Your task to perform on an android device: change text size in settings app Image 0: 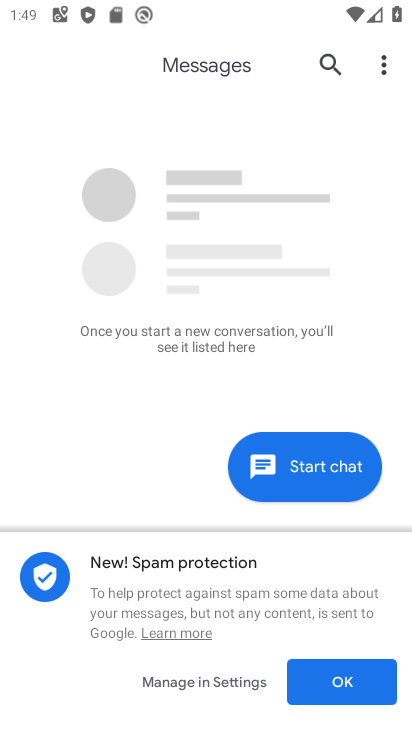
Step 0: press home button
Your task to perform on an android device: change text size in settings app Image 1: 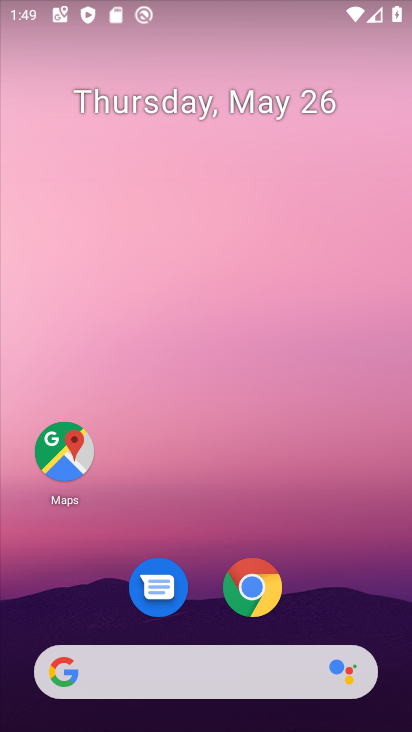
Step 1: drag from (325, 586) to (321, 183)
Your task to perform on an android device: change text size in settings app Image 2: 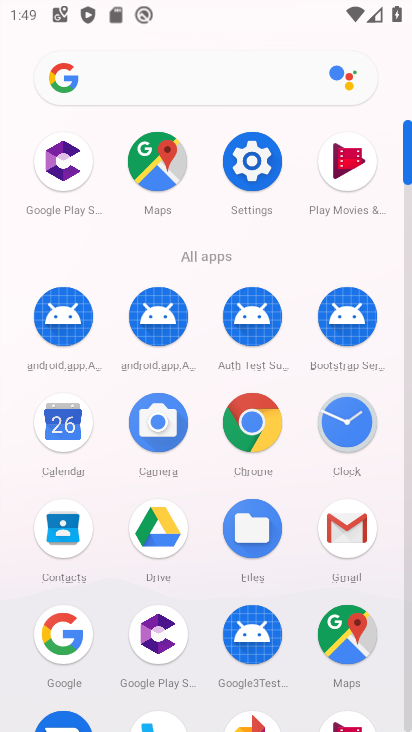
Step 2: click (239, 186)
Your task to perform on an android device: change text size in settings app Image 3: 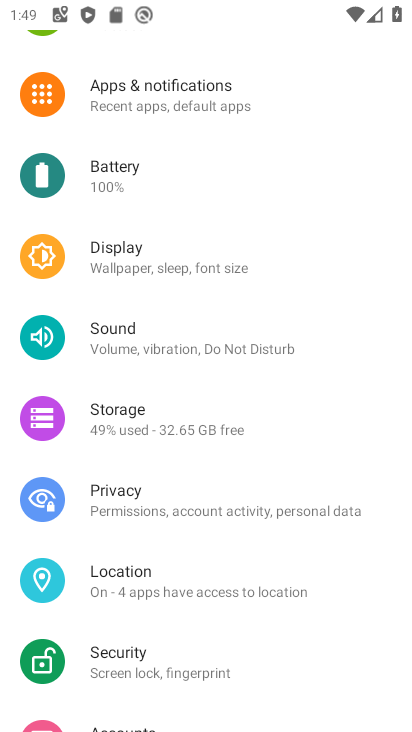
Step 3: drag from (207, 607) to (232, 1)
Your task to perform on an android device: change text size in settings app Image 4: 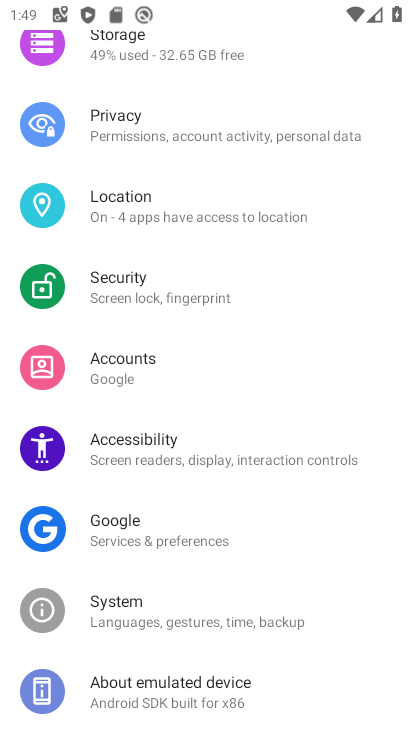
Step 4: drag from (198, 248) to (226, 678)
Your task to perform on an android device: change text size in settings app Image 5: 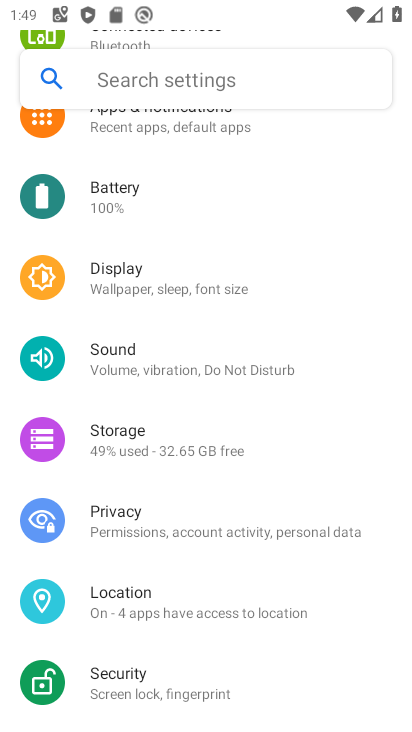
Step 5: click (198, 297)
Your task to perform on an android device: change text size in settings app Image 6: 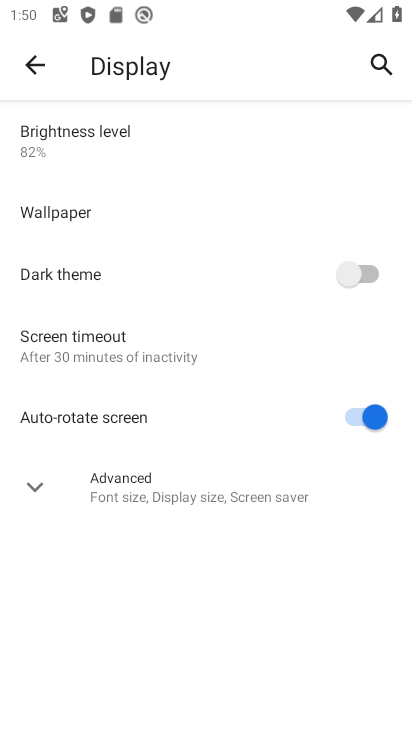
Step 6: click (128, 474)
Your task to perform on an android device: change text size in settings app Image 7: 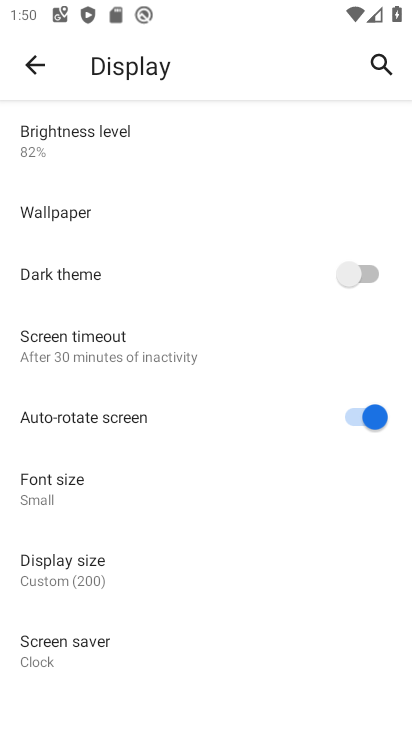
Step 7: click (82, 493)
Your task to perform on an android device: change text size in settings app Image 8: 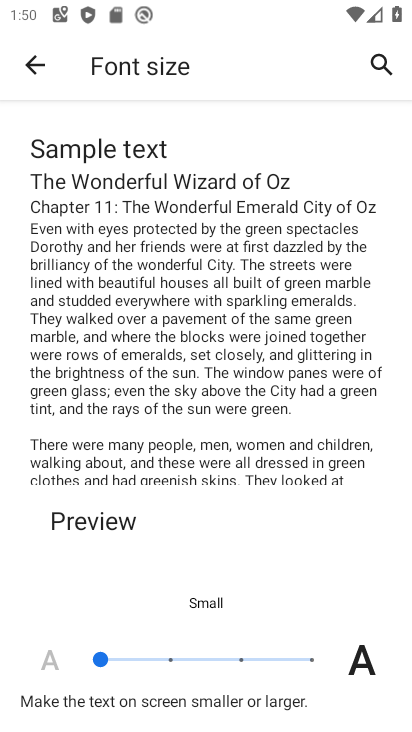
Step 8: click (153, 653)
Your task to perform on an android device: change text size in settings app Image 9: 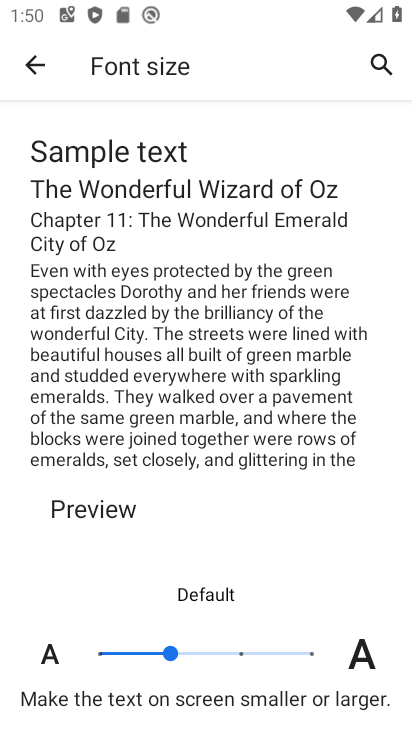
Step 9: task complete